Your task to perform on an android device: open a bookmark in the chrome app Image 0: 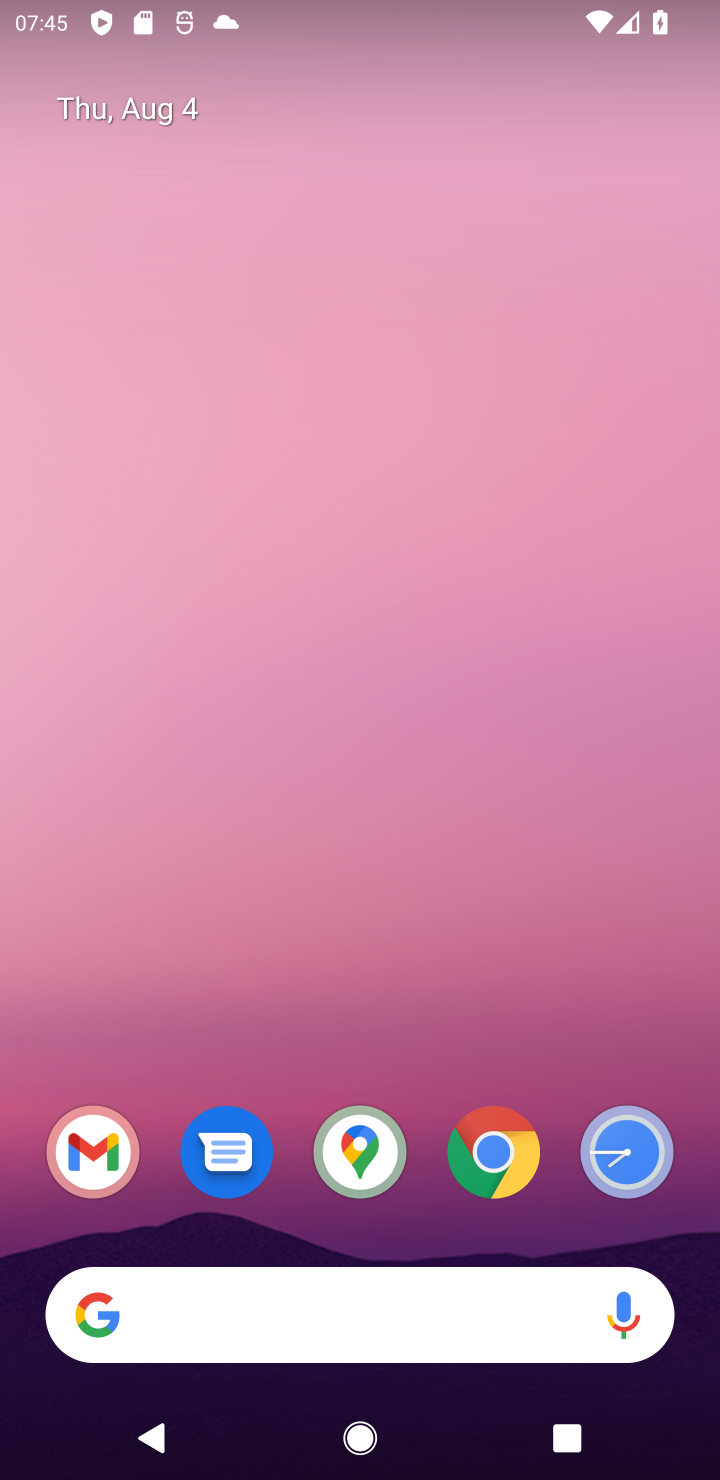
Step 0: click (497, 1152)
Your task to perform on an android device: open a bookmark in the chrome app Image 1: 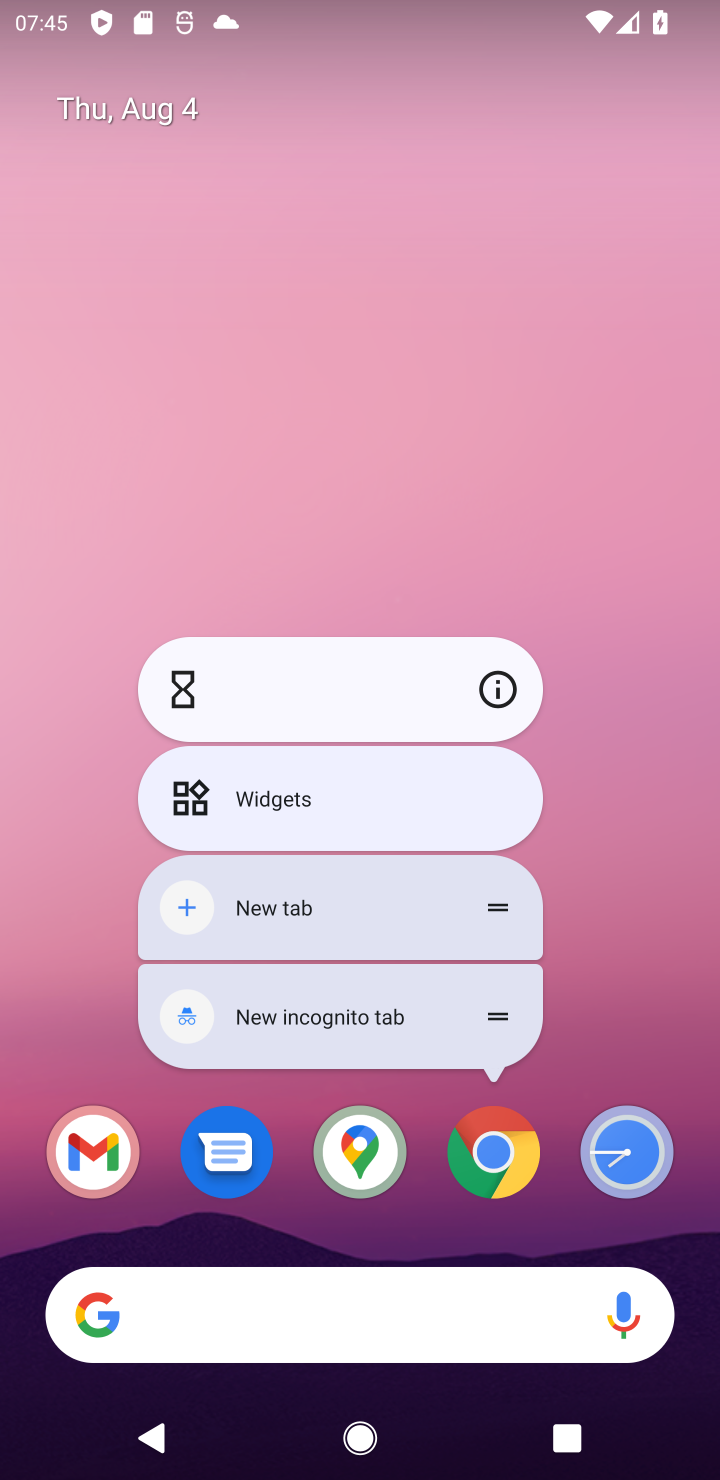
Step 1: click (497, 1152)
Your task to perform on an android device: open a bookmark in the chrome app Image 2: 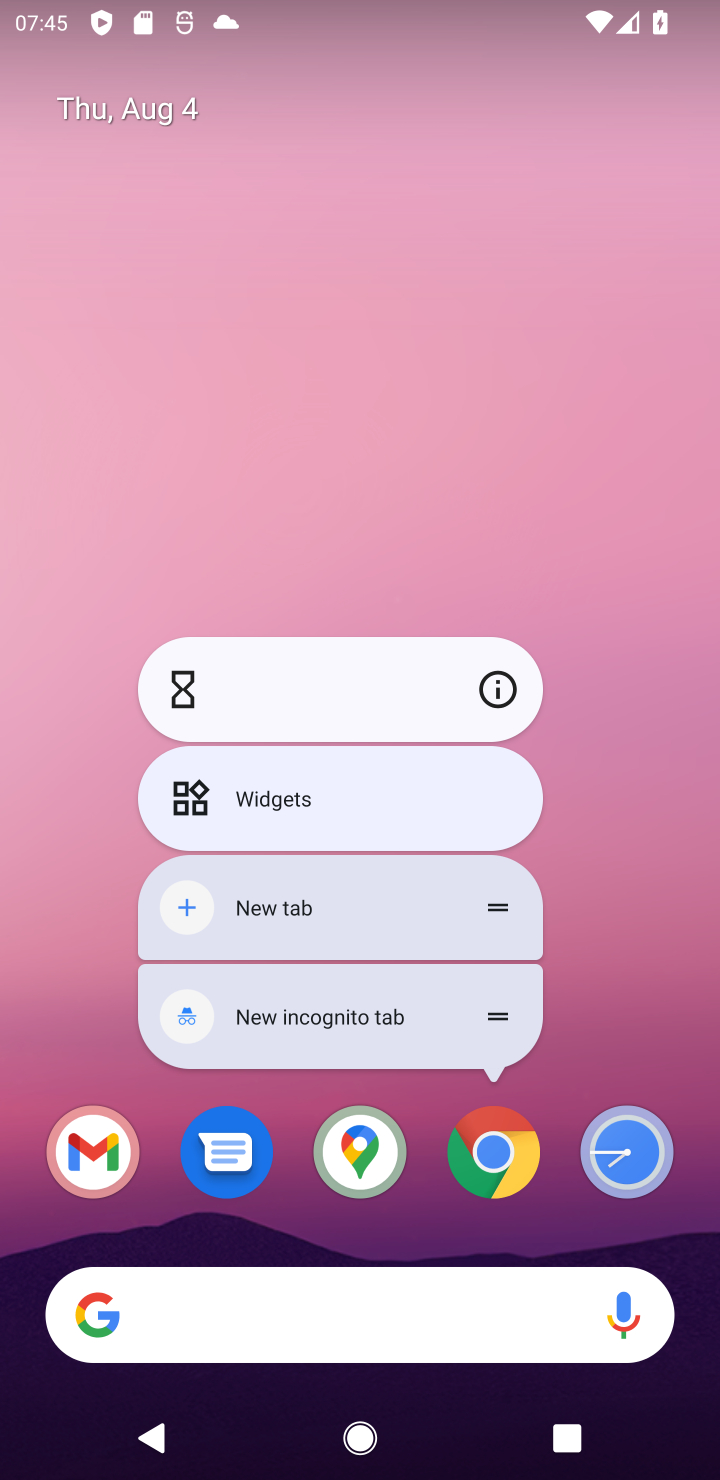
Step 2: click (501, 1152)
Your task to perform on an android device: open a bookmark in the chrome app Image 3: 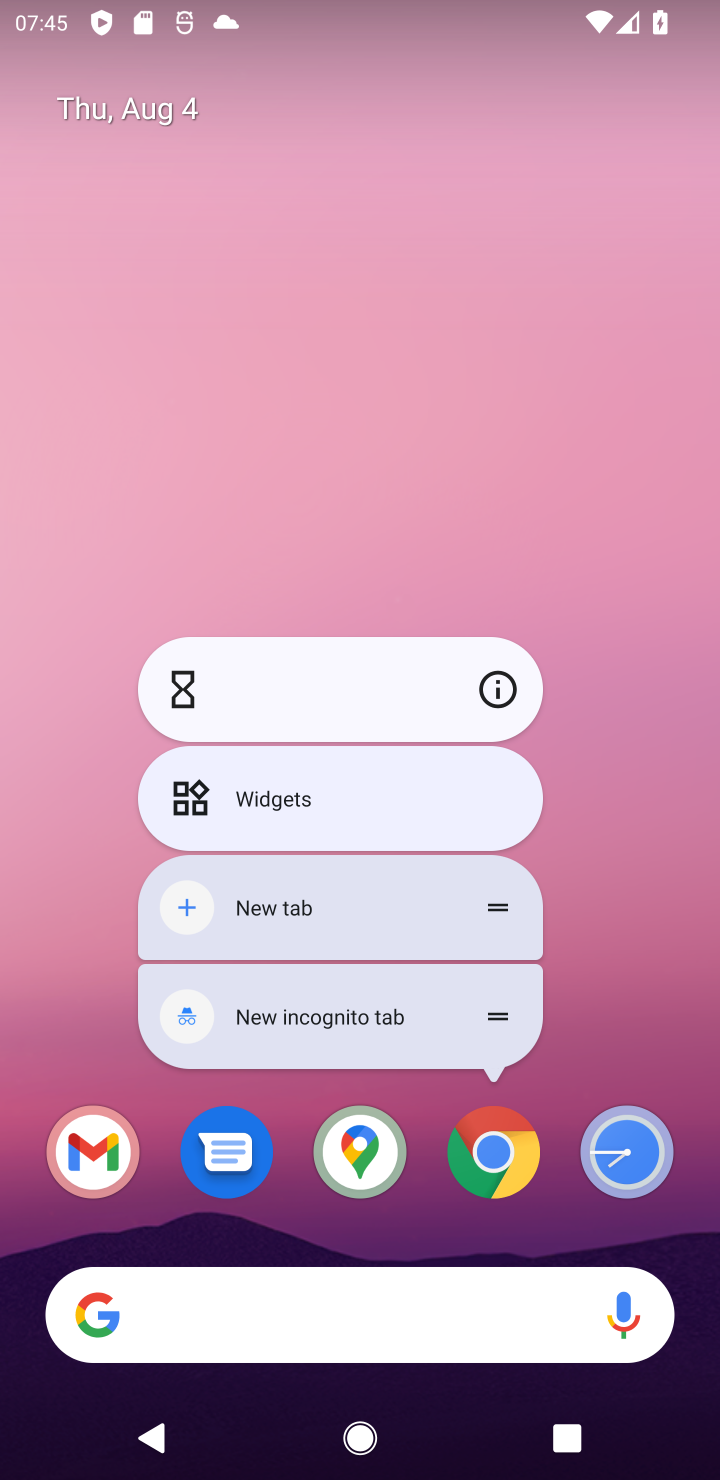
Step 3: click (501, 1152)
Your task to perform on an android device: open a bookmark in the chrome app Image 4: 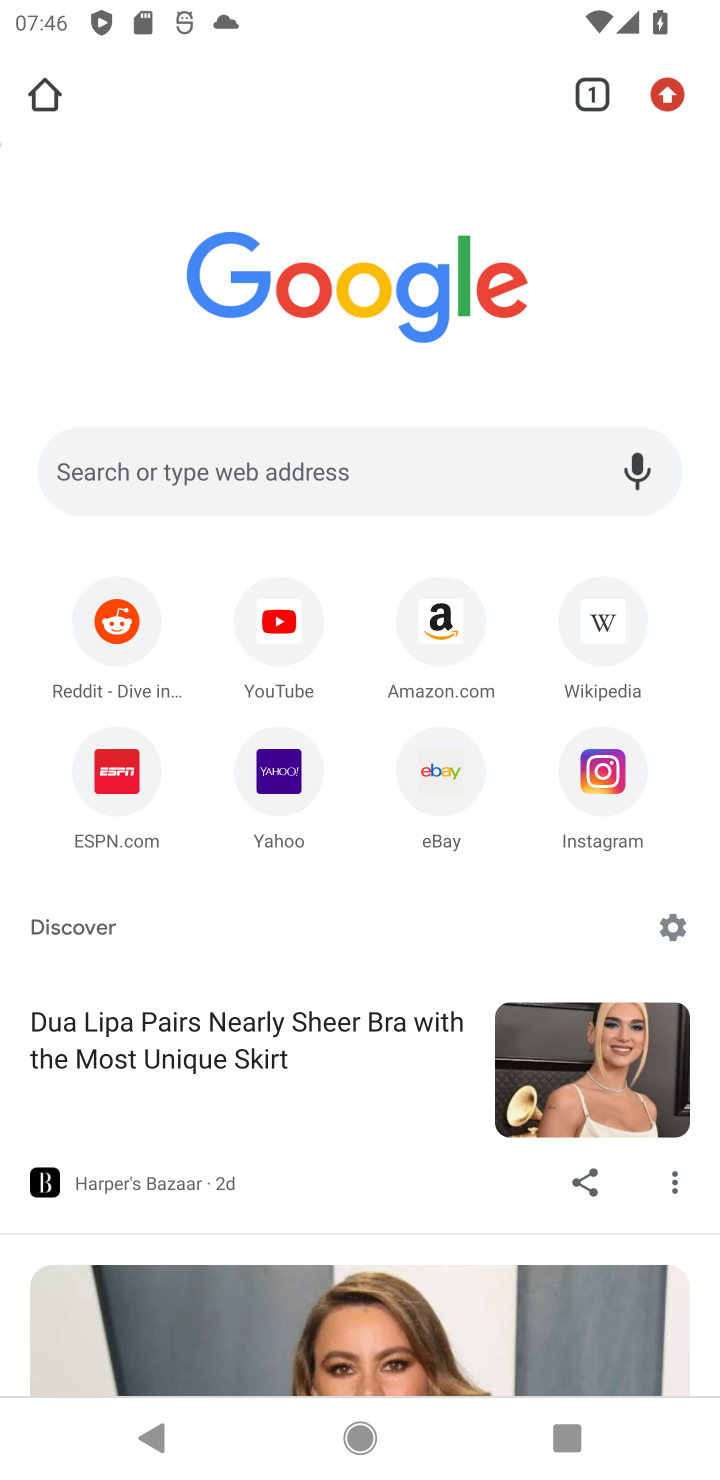
Step 4: click (661, 101)
Your task to perform on an android device: open a bookmark in the chrome app Image 5: 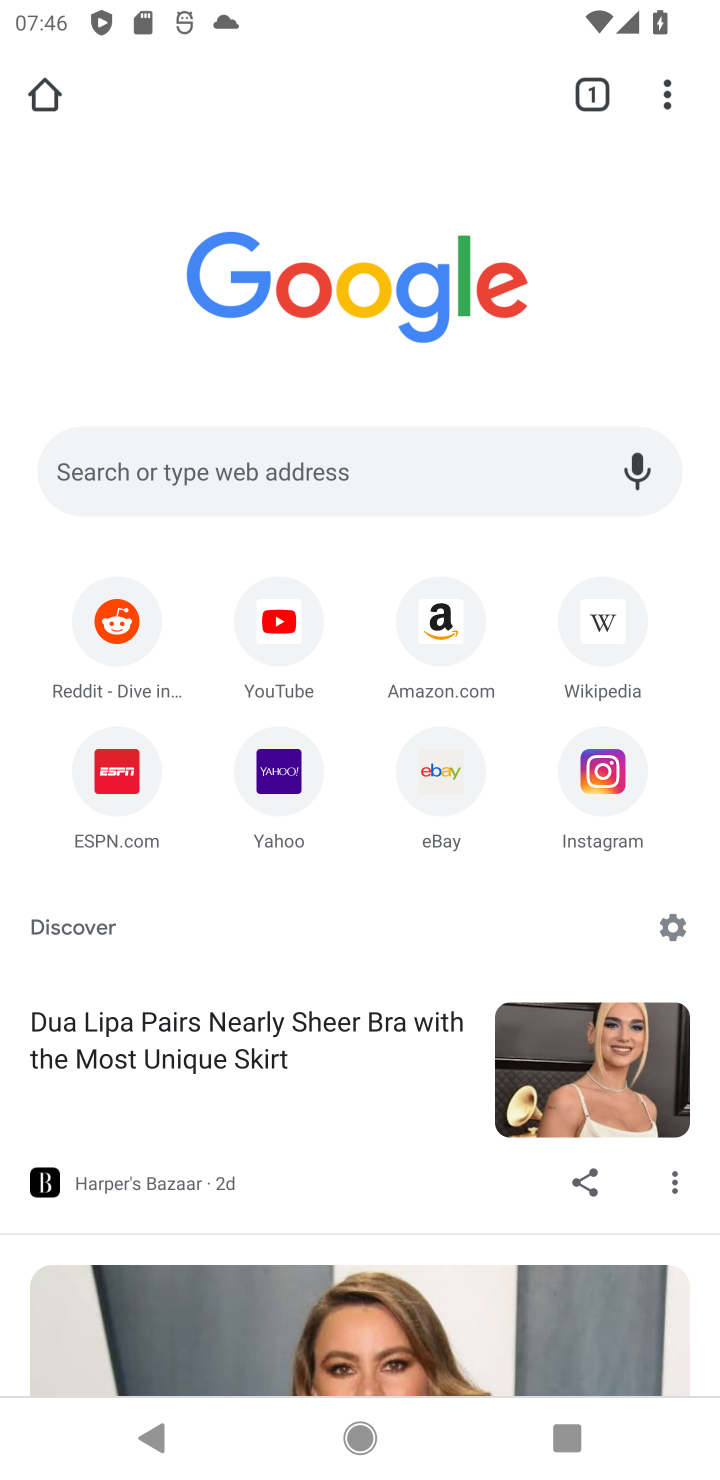
Step 5: click (664, 88)
Your task to perform on an android device: open a bookmark in the chrome app Image 6: 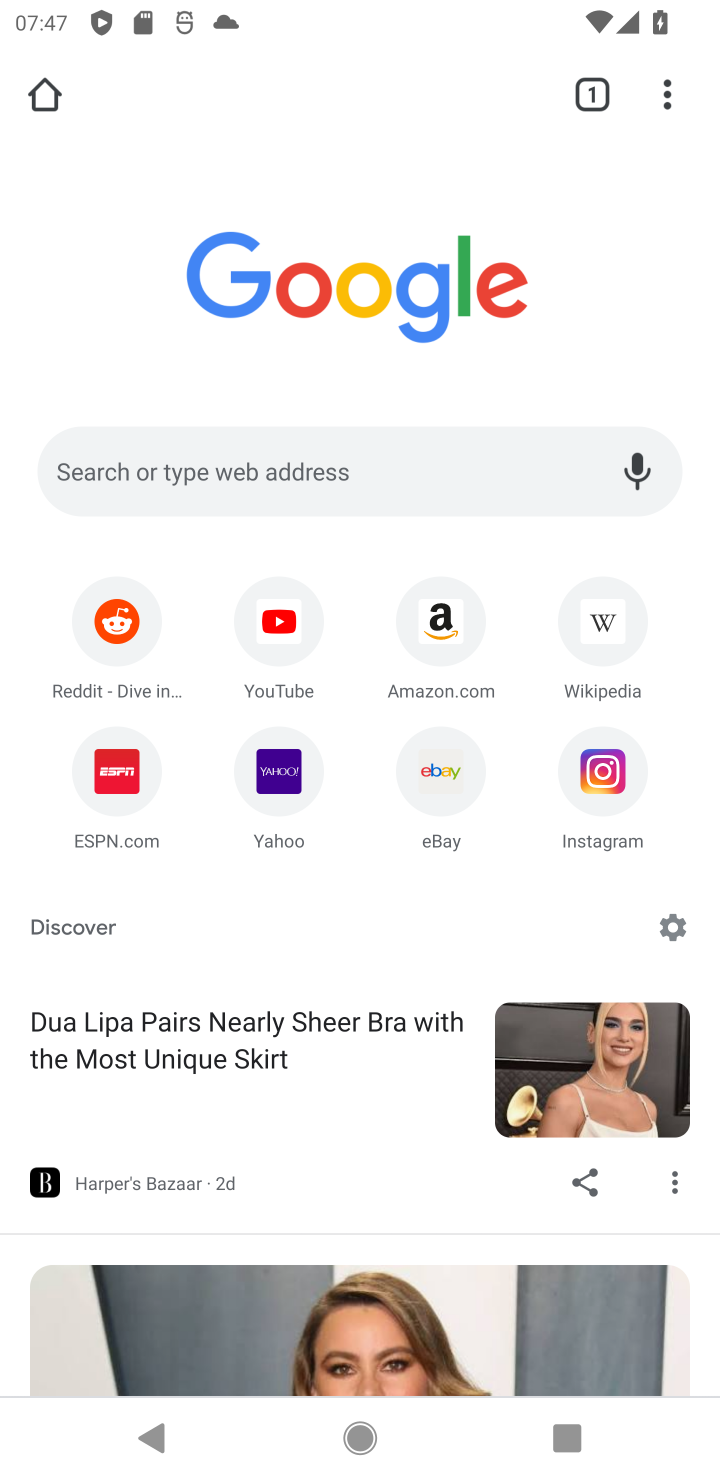
Step 6: click (667, 93)
Your task to perform on an android device: open a bookmark in the chrome app Image 7: 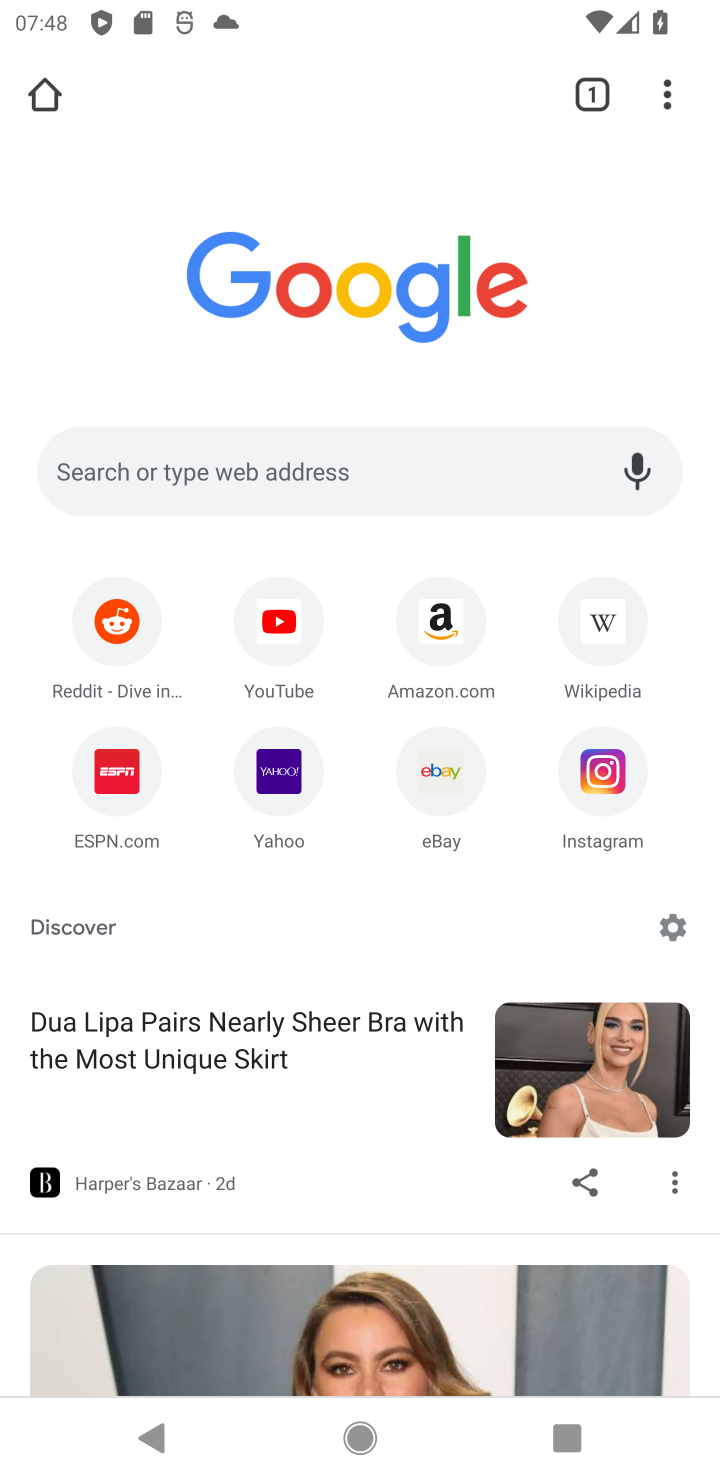
Step 7: click (668, 93)
Your task to perform on an android device: open a bookmark in the chrome app Image 8: 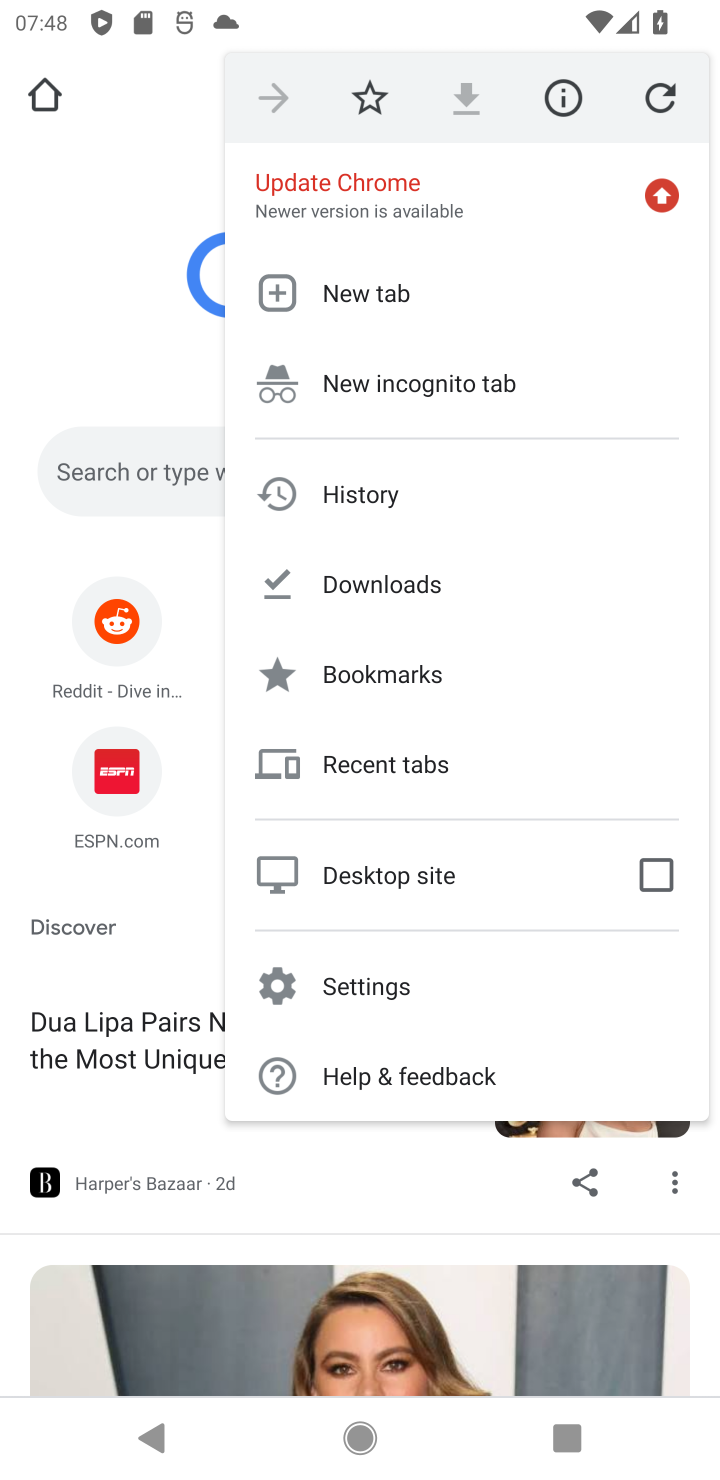
Step 8: click (372, 675)
Your task to perform on an android device: open a bookmark in the chrome app Image 9: 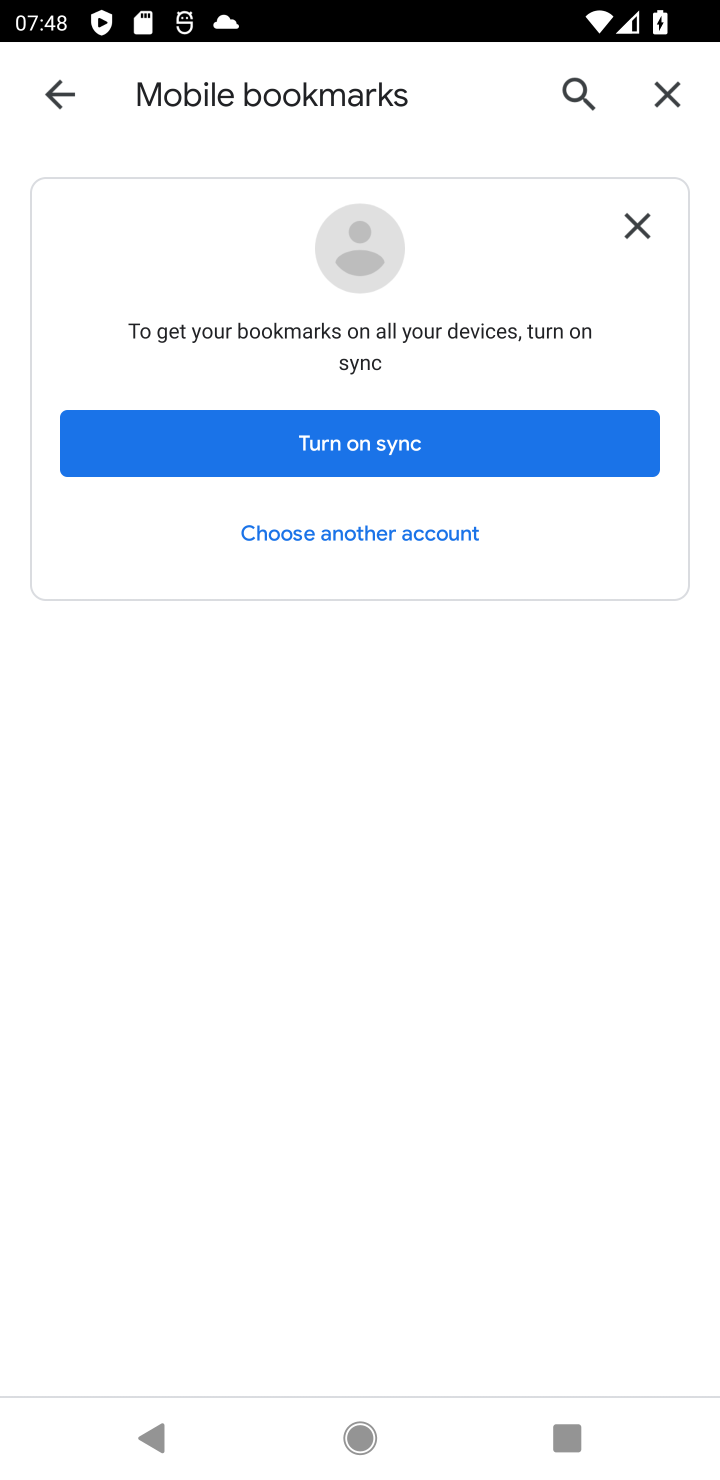
Step 9: click (638, 223)
Your task to perform on an android device: open a bookmark in the chrome app Image 10: 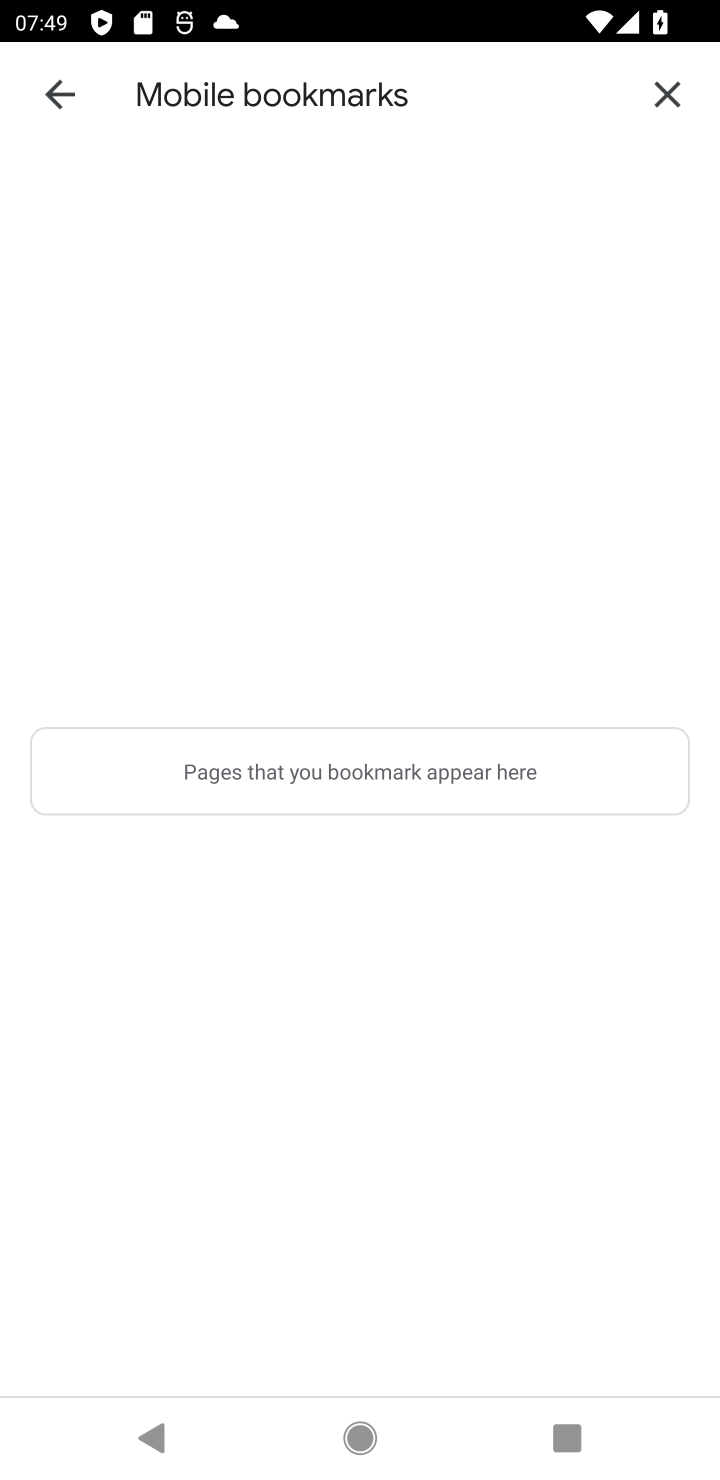
Step 10: task complete